Your task to perform on an android device: turn off translation in the chrome app Image 0: 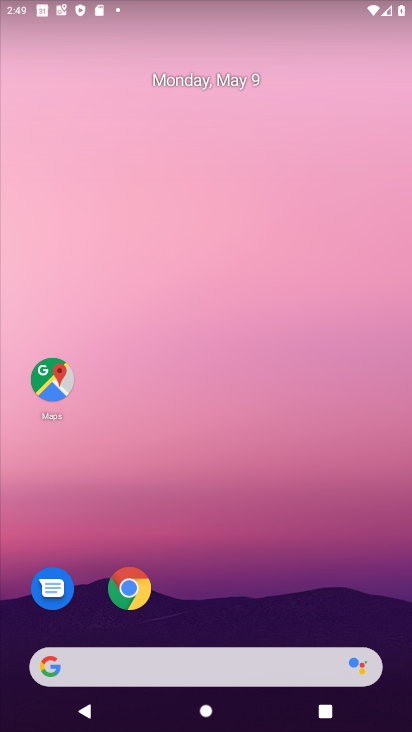
Step 0: drag from (306, 606) to (357, 259)
Your task to perform on an android device: turn off translation in the chrome app Image 1: 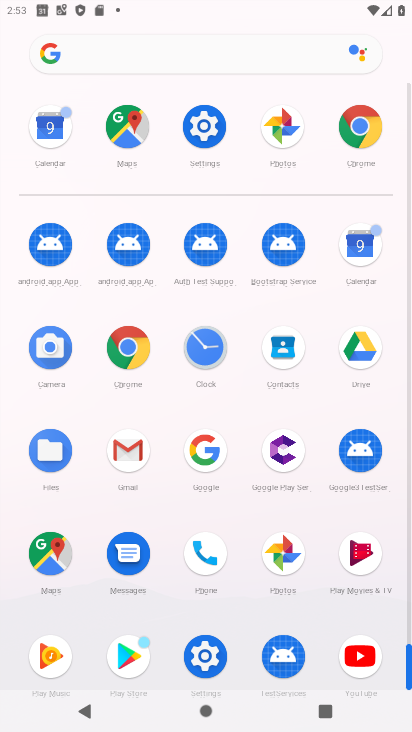
Step 1: click (350, 128)
Your task to perform on an android device: turn off translation in the chrome app Image 2: 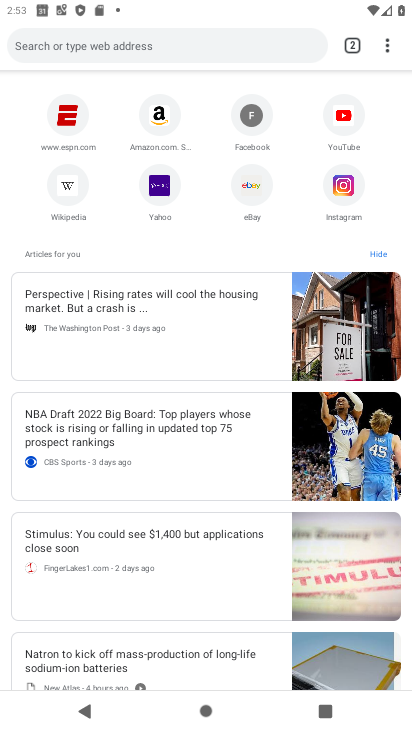
Step 2: click (387, 43)
Your task to perform on an android device: turn off translation in the chrome app Image 3: 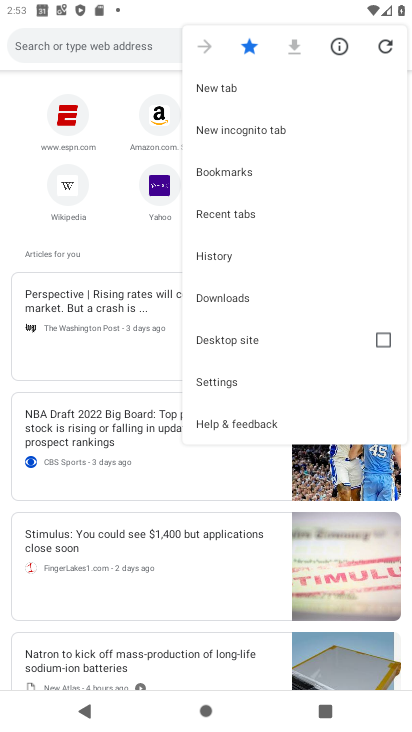
Step 3: click (278, 381)
Your task to perform on an android device: turn off translation in the chrome app Image 4: 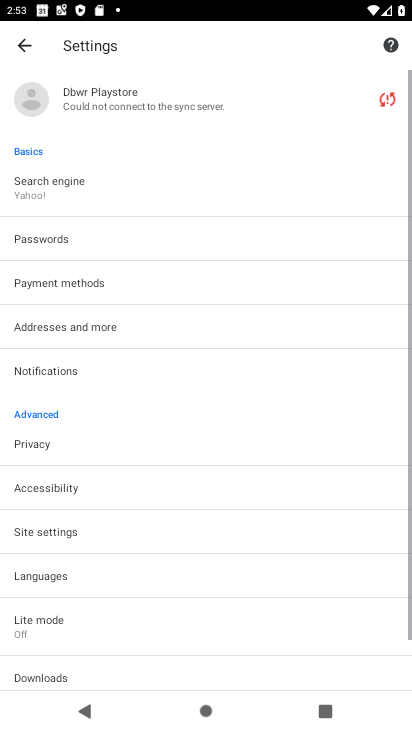
Step 4: click (113, 576)
Your task to perform on an android device: turn off translation in the chrome app Image 5: 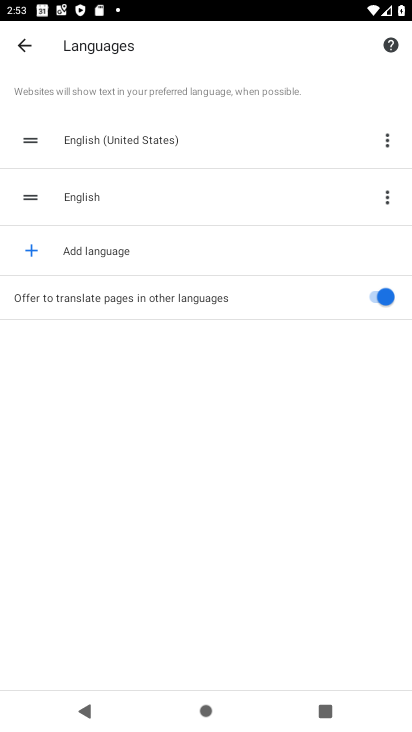
Step 5: click (338, 304)
Your task to perform on an android device: turn off translation in the chrome app Image 6: 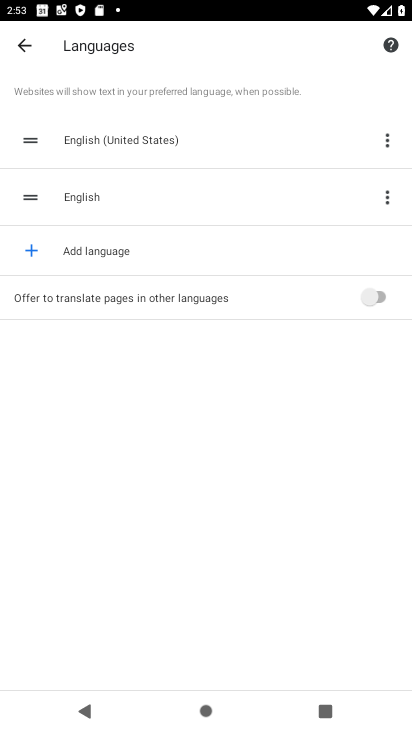
Step 6: task complete